Your task to perform on an android device: Add "usb-b" to the cart on newegg.com, then select checkout. Image 0: 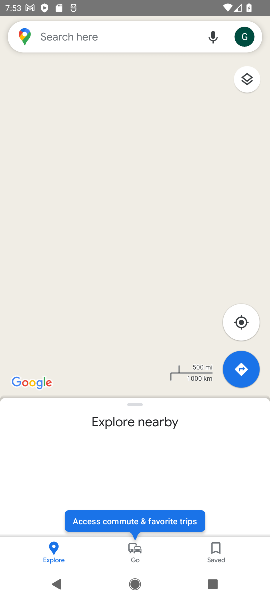
Step 0: press home button
Your task to perform on an android device: Add "usb-b" to the cart on newegg.com, then select checkout. Image 1: 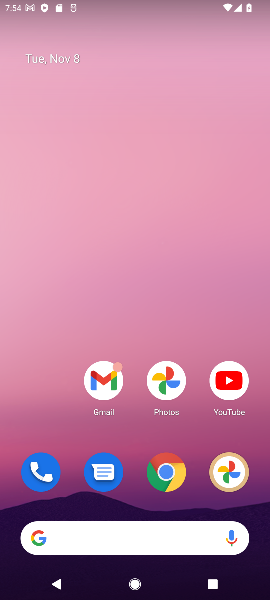
Step 1: click (164, 473)
Your task to perform on an android device: Add "usb-b" to the cart on newegg.com, then select checkout. Image 2: 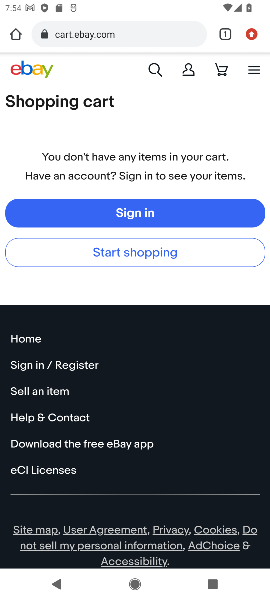
Step 2: click (133, 35)
Your task to perform on an android device: Add "usb-b" to the cart on newegg.com, then select checkout. Image 3: 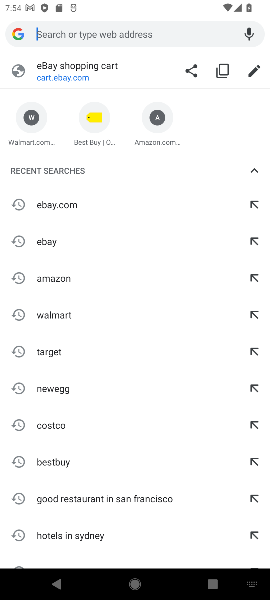
Step 3: click (47, 384)
Your task to perform on an android device: Add "usb-b" to the cart on newegg.com, then select checkout. Image 4: 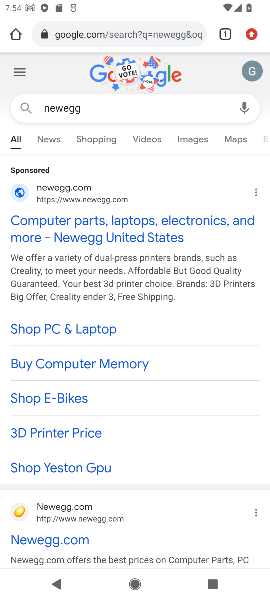
Step 4: click (35, 538)
Your task to perform on an android device: Add "usb-b" to the cart on newegg.com, then select checkout. Image 5: 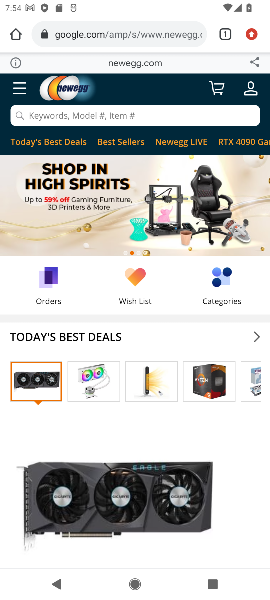
Step 5: click (105, 115)
Your task to perform on an android device: Add "usb-b" to the cart on newegg.com, then select checkout. Image 6: 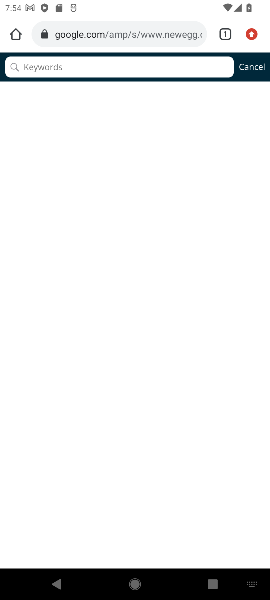
Step 6: click (40, 69)
Your task to perform on an android device: Add "usb-b" to the cart on newegg.com, then select checkout. Image 7: 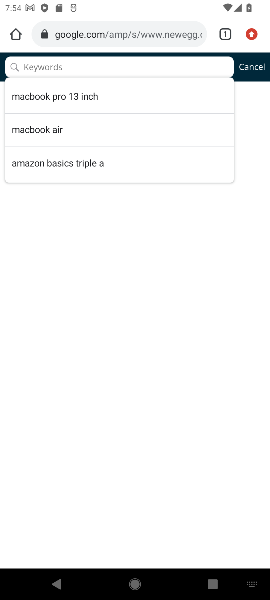
Step 7: click (36, 66)
Your task to perform on an android device: Add "usb-b" to the cart on newegg.com, then select checkout. Image 8: 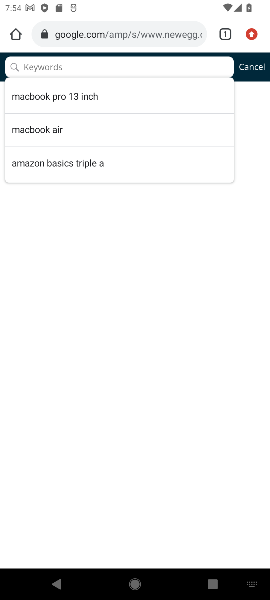
Step 8: type "usb-b"
Your task to perform on an android device: Add "usb-b" to the cart on newegg.com, then select checkout. Image 9: 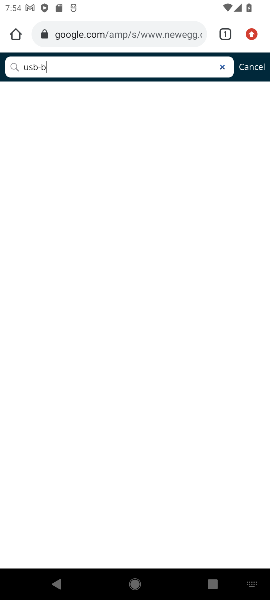
Step 9: press enter
Your task to perform on an android device: Add "usb-b" to the cart on newegg.com, then select checkout. Image 10: 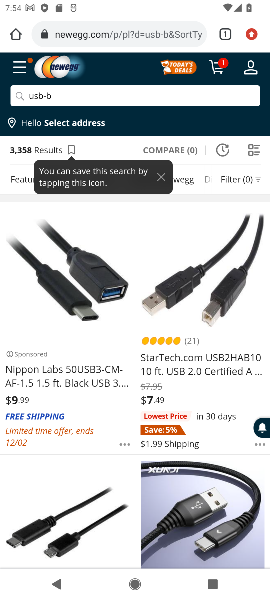
Step 10: click (60, 371)
Your task to perform on an android device: Add "usb-b" to the cart on newegg.com, then select checkout. Image 11: 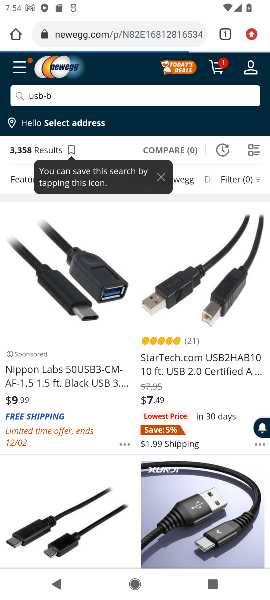
Step 11: click (71, 304)
Your task to perform on an android device: Add "usb-b" to the cart on newegg.com, then select checkout. Image 12: 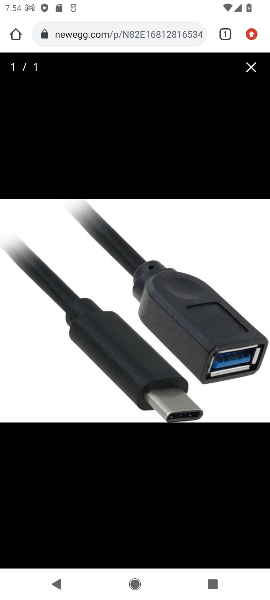
Step 12: click (252, 72)
Your task to perform on an android device: Add "usb-b" to the cart on newegg.com, then select checkout. Image 13: 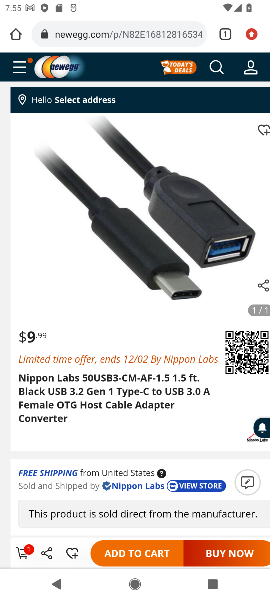
Step 13: task complete